Your task to perform on an android device: toggle notifications settings in the gmail app Image 0: 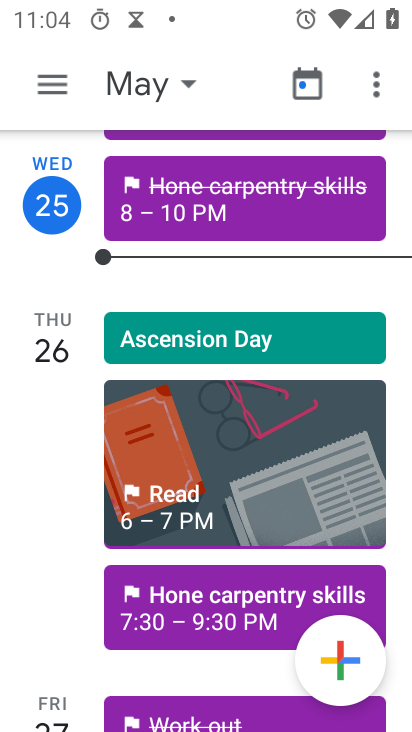
Step 0: press home button
Your task to perform on an android device: toggle notifications settings in the gmail app Image 1: 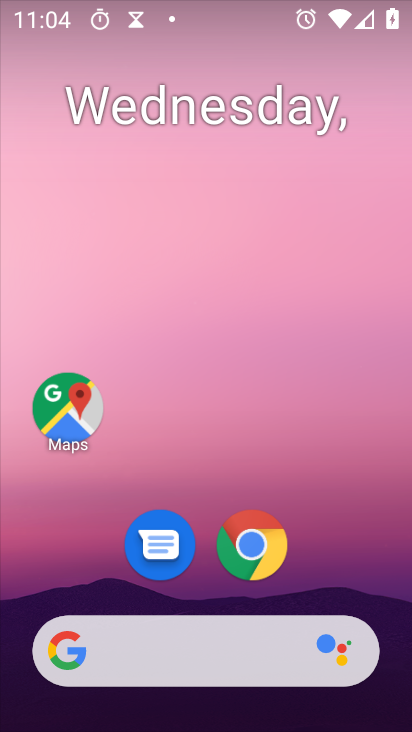
Step 1: drag from (225, 639) to (371, 110)
Your task to perform on an android device: toggle notifications settings in the gmail app Image 2: 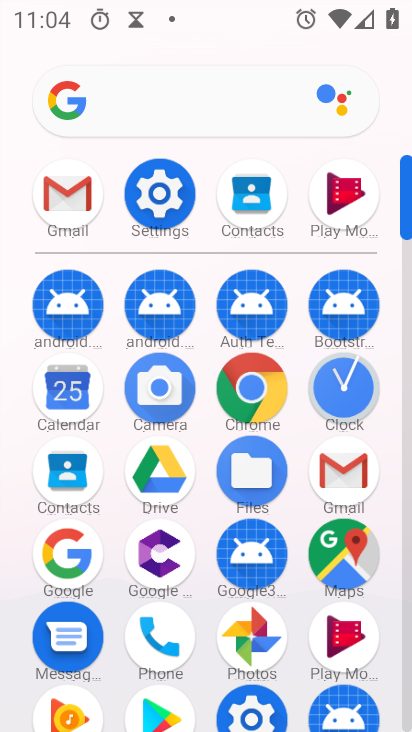
Step 2: click (72, 206)
Your task to perform on an android device: toggle notifications settings in the gmail app Image 3: 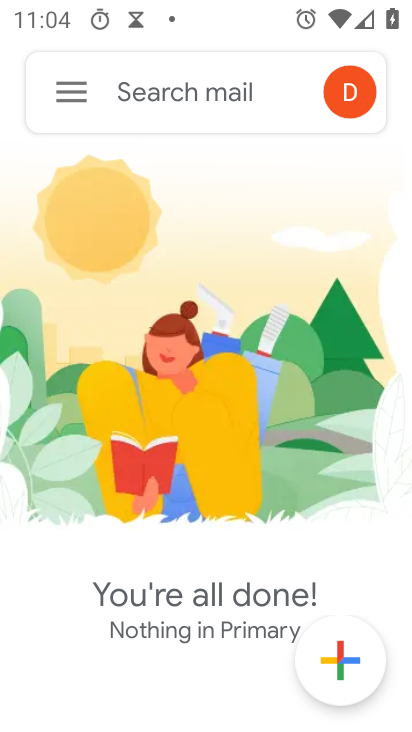
Step 3: click (59, 91)
Your task to perform on an android device: toggle notifications settings in the gmail app Image 4: 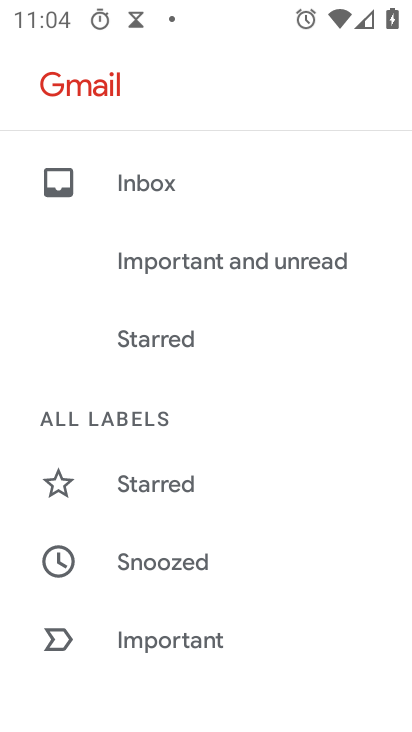
Step 4: drag from (256, 623) to (411, 111)
Your task to perform on an android device: toggle notifications settings in the gmail app Image 5: 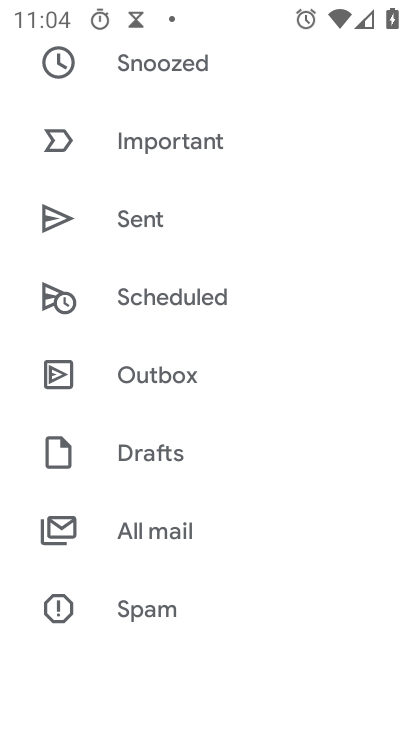
Step 5: drag from (275, 628) to (402, 63)
Your task to perform on an android device: toggle notifications settings in the gmail app Image 6: 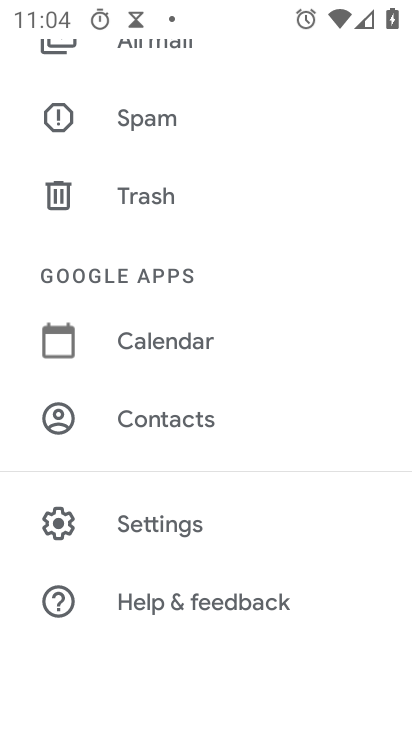
Step 6: click (166, 523)
Your task to perform on an android device: toggle notifications settings in the gmail app Image 7: 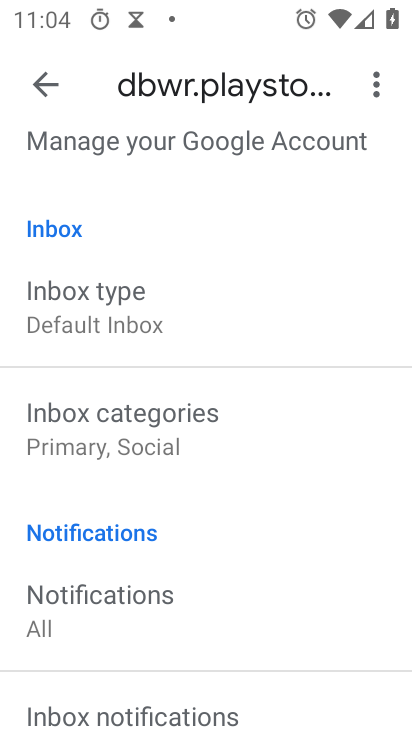
Step 7: click (104, 606)
Your task to perform on an android device: toggle notifications settings in the gmail app Image 8: 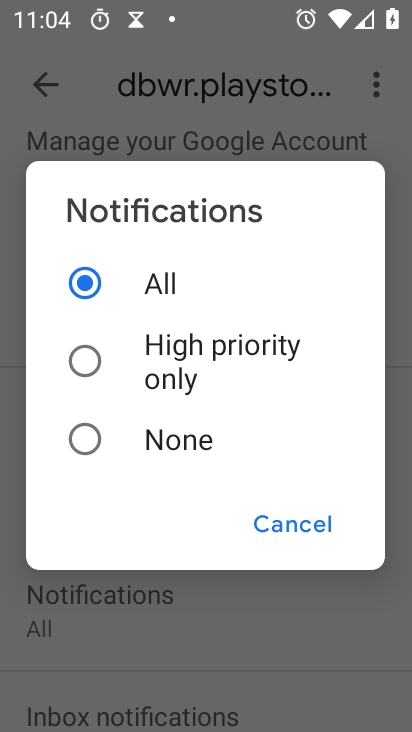
Step 8: click (88, 448)
Your task to perform on an android device: toggle notifications settings in the gmail app Image 9: 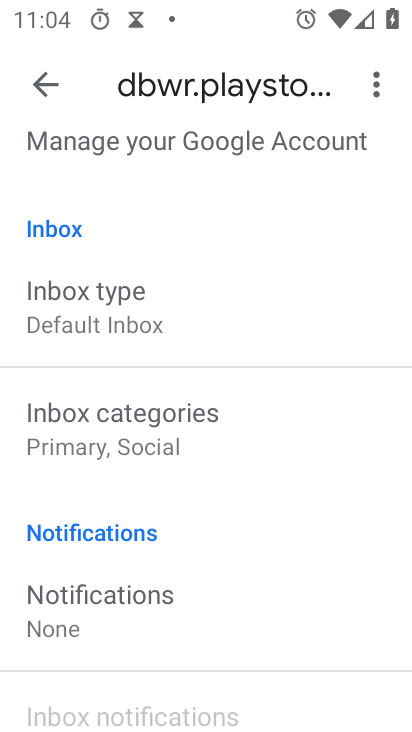
Step 9: task complete